Your task to perform on an android device: Go to privacy settings Image 0: 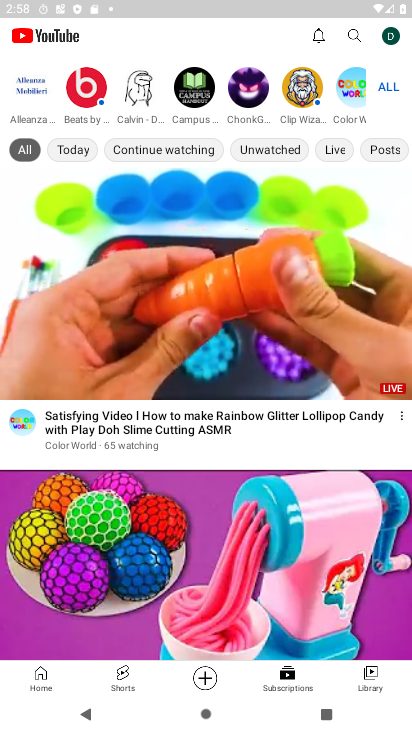
Step 0: press home button
Your task to perform on an android device: Go to privacy settings Image 1: 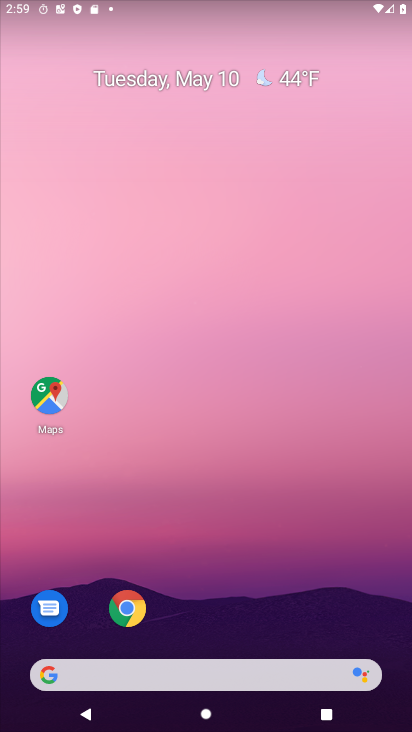
Step 1: drag from (252, 604) to (253, 7)
Your task to perform on an android device: Go to privacy settings Image 2: 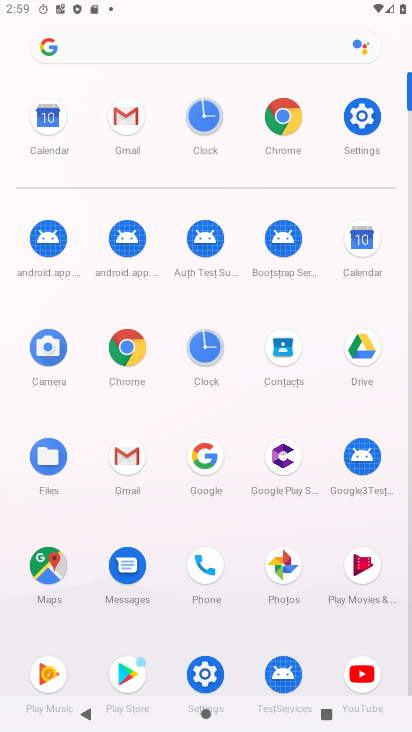
Step 2: click (361, 154)
Your task to perform on an android device: Go to privacy settings Image 3: 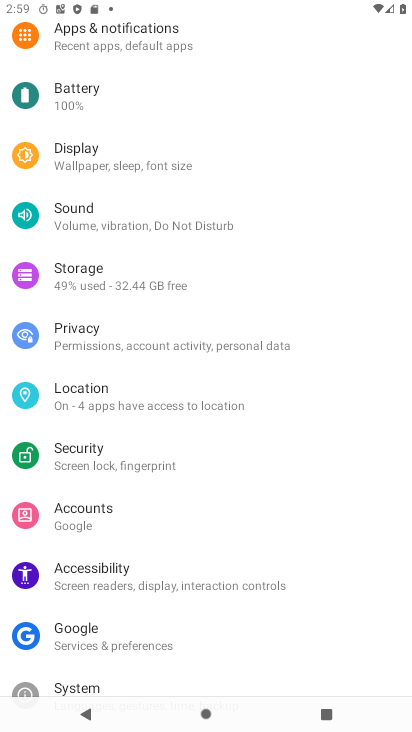
Step 3: click (62, 345)
Your task to perform on an android device: Go to privacy settings Image 4: 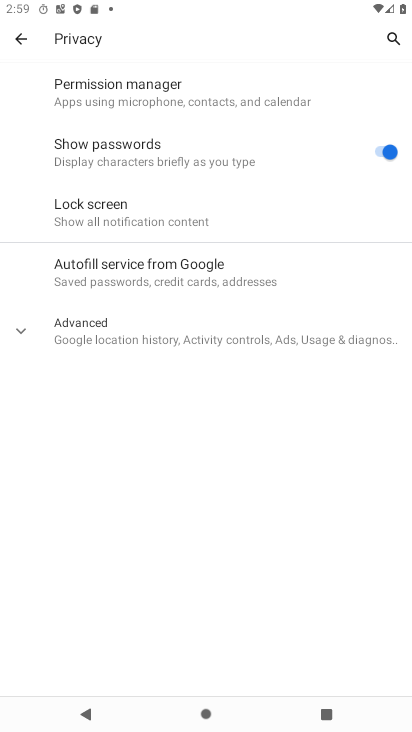
Step 4: task complete